Your task to perform on an android device: Open calendar and show me the third week of next month Image 0: 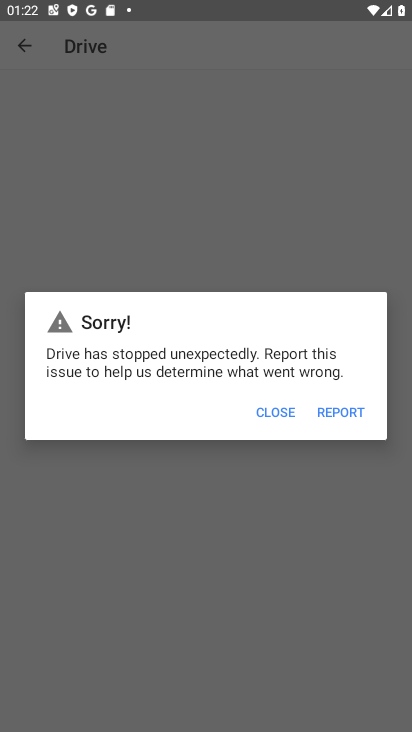
Step 0: press home button
Your task to perform on an android device: Open calendar and show me the third week of next month Image 1: 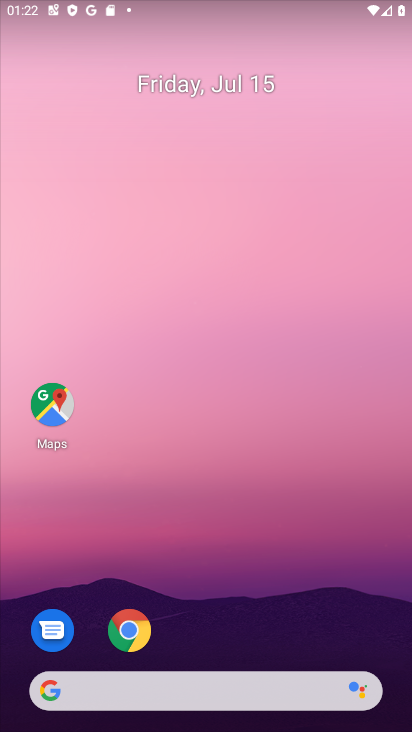
Step 1: drag from (287, 612) to (280, 127)
Your task to perform on an android device: Open calendar and show me the third week of next month Image 2: 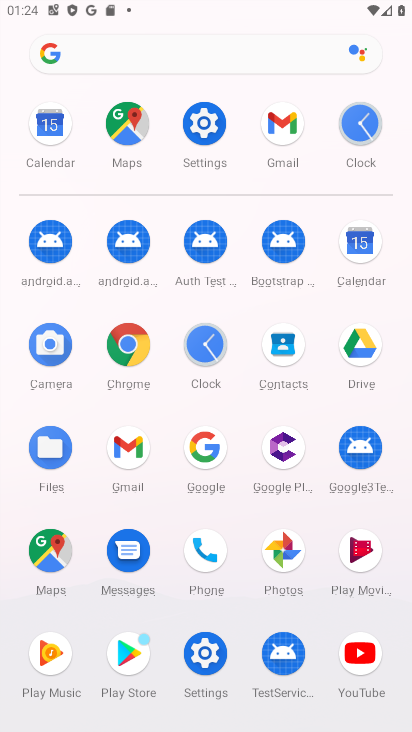
Step 2: click (343, 246)
Your task to perform on an android device: Open calendar and show me the third week of next month Image 3: 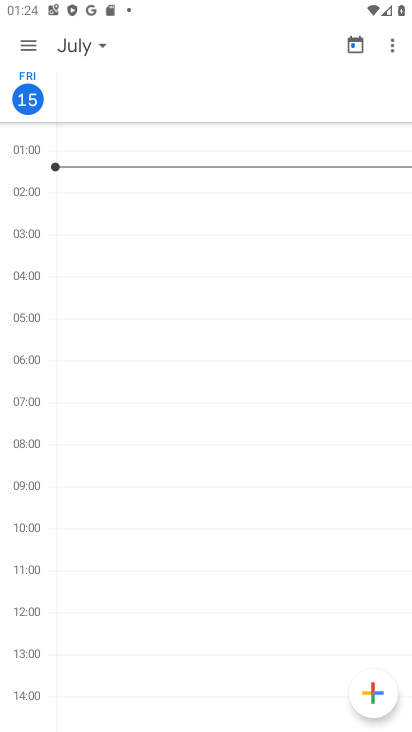
Step 3: task complete